Your task to perform on an android device: toggle priority inbox in the gmail app Image 0: 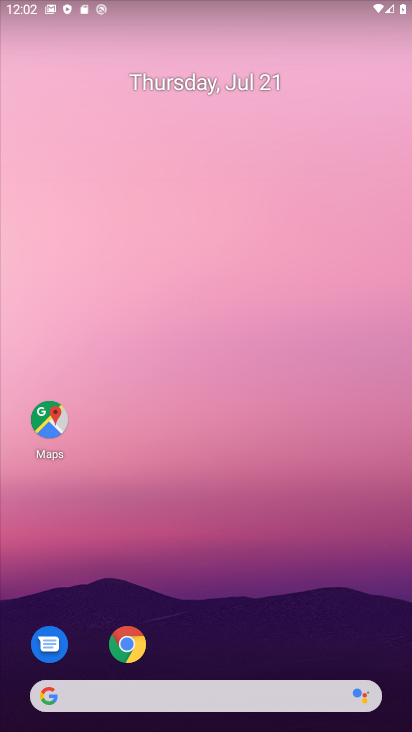
Step 0: click (294, 448)
Your task to perform on an android device: toggle priority inbox in the gmail app Image 1: 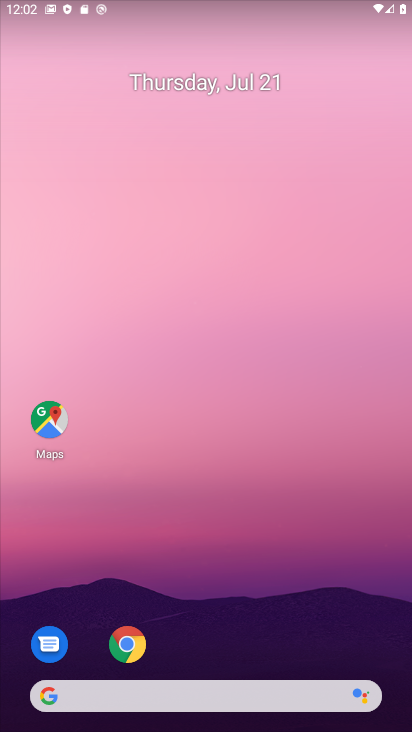
Step 1: drag from (199, 662) to (157, 52)
Your task to perform on an android device: toggle priority inbox in the gmail app Image 2: 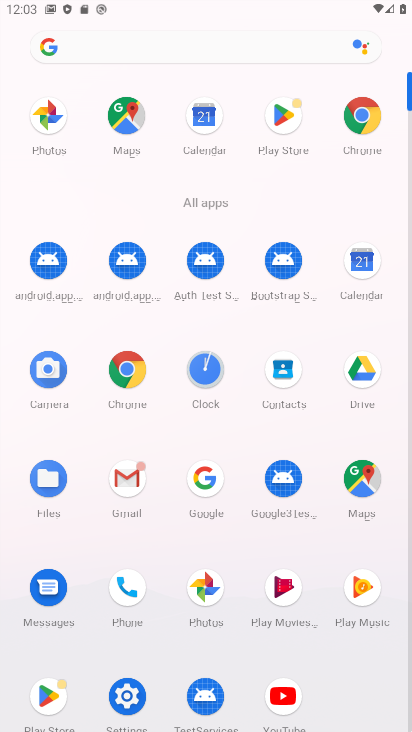
Step 2: click (136, 476)
Your task to perform on an android device: toggle priority inbox in the gmail app Image 3: 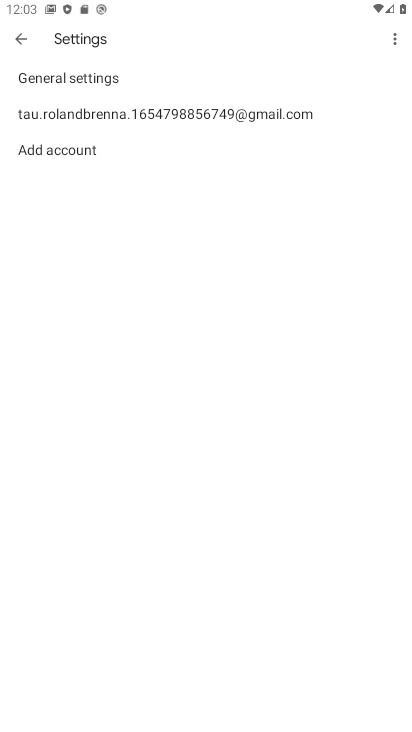
Step 3: click (88, 106)
Your task to perform on an android device: toggle priority inbox in the gmail app Image 4: 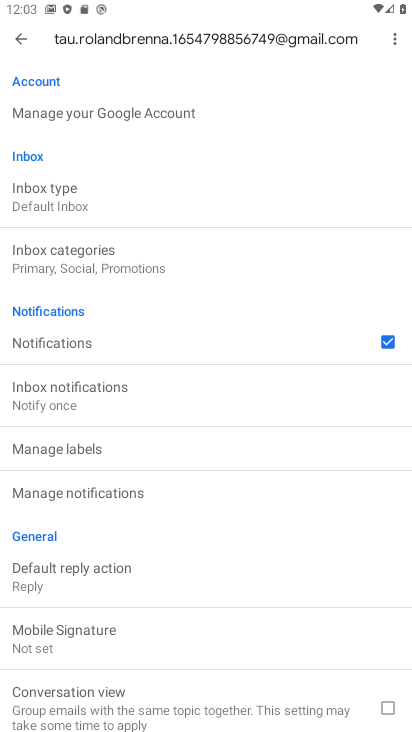
Step 4: click (48, 182)
Your task to perform on an android device: toggle priority inbox in the gmail app Image 5: 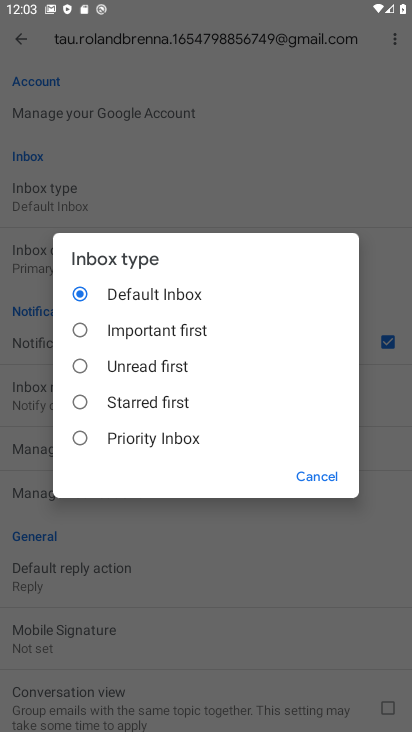
Step 5: click (164, 438)
Your task to perform on an android device: toggle priority inbox in the gmail app Image 6: 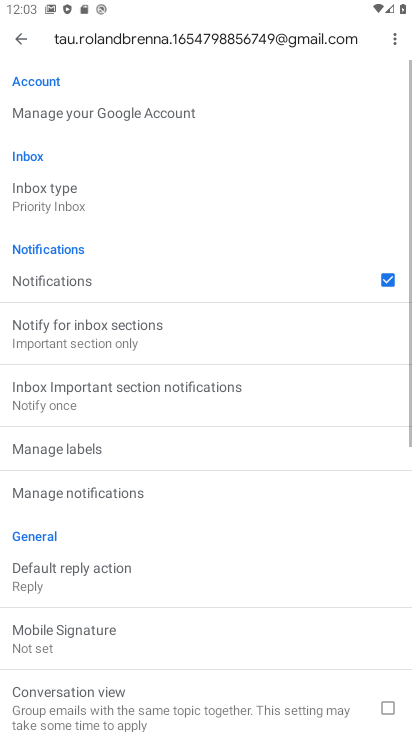
Step 6: task complete